Your task to perform on an android device: change text size in settings app Image 0: 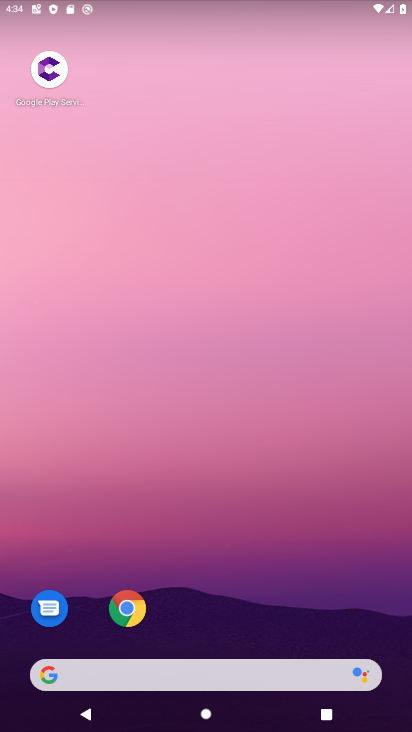
Step 0: drag from (206, 614) to (358, 19)
Your task to perform on an android device: change text size in settings app Image 1: 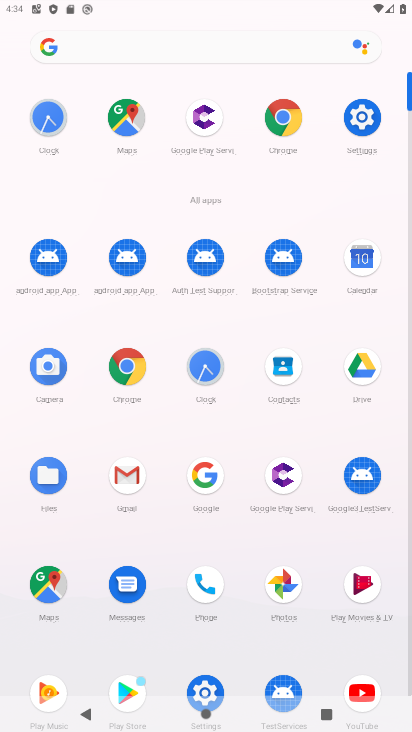
Step 1: click (360, 109)
Your task to perform on an android device: change text size in settings app Image 2: 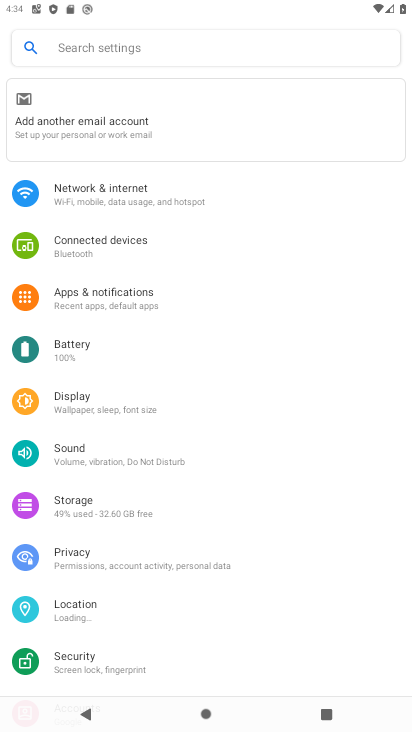
Step 2: click (129, 47)
Your task to perform on an android device: change text size in settings app Image 3: 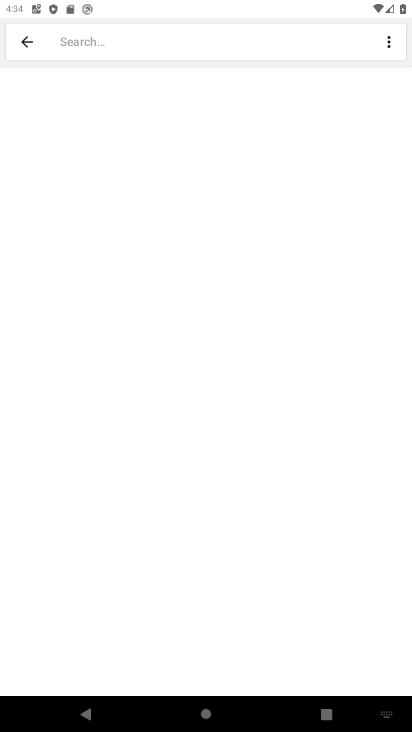
Step 3: type "text size"
Your task to perform on an android device: change text size in settings app Image 4: 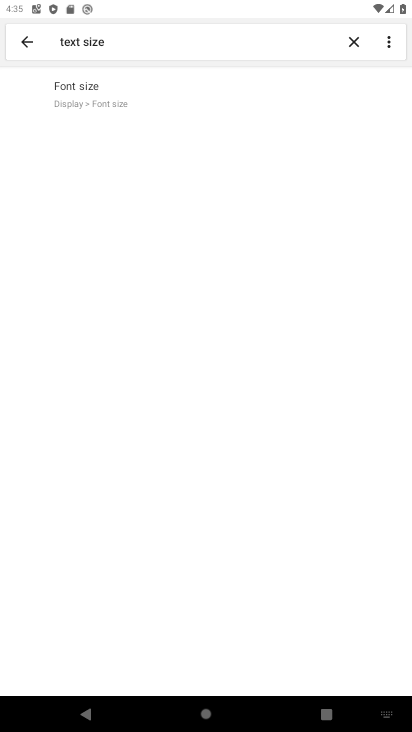
Step 4: click (150, 96)
Your task to perform on an android device: change text size in settings app Image 5: 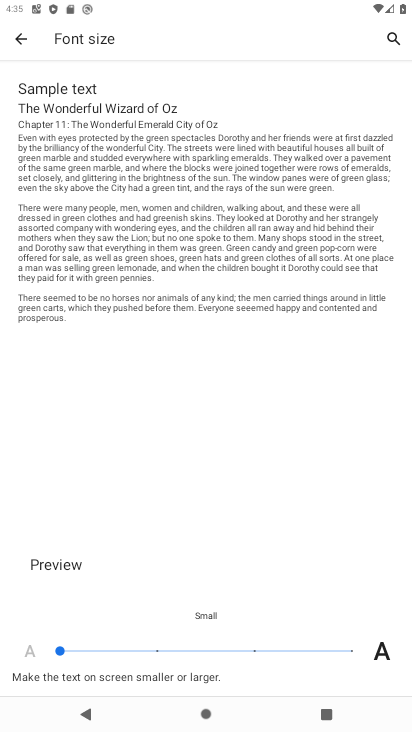
Step 5: task complete